Your task to perform on an android device: Open accessibility settings Image 0: 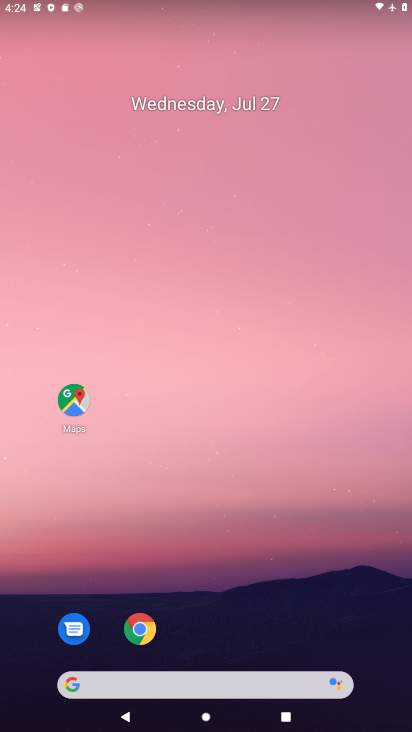
Step 0: drag from (253, 668) to (188, 131)
Your task to perform on an android device: Open accessibility settings Image 1: 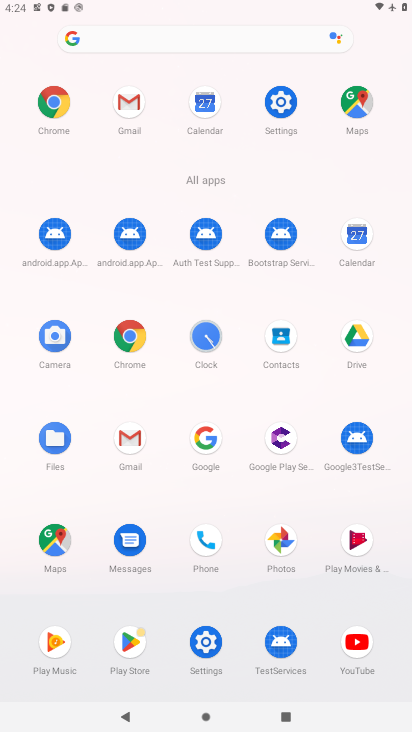
Step 1: click (288, 113)
Your task to perform on an android device: Open accessibility settings Image 2: 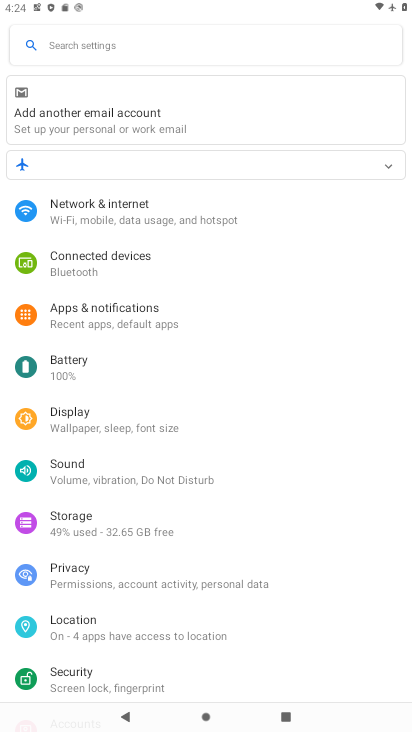
Step 2: drag from (217, 586) to (189, 75)
Your task to perform on an android device: Open accessibility settings Image 3: 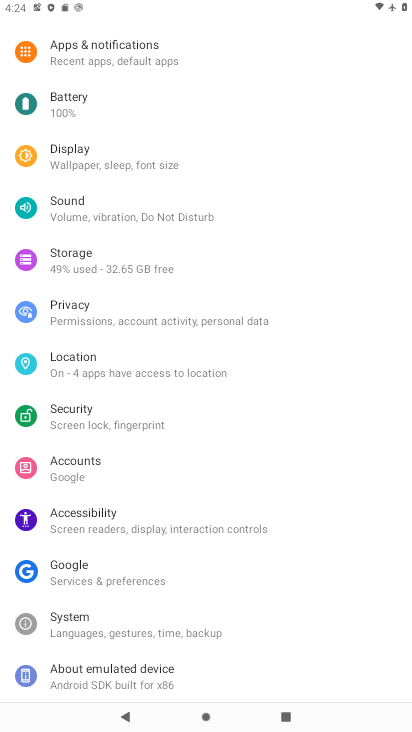
Step 3: click (107, 517)
Your task to perform on an android device: Open accessibility settings Image 4: 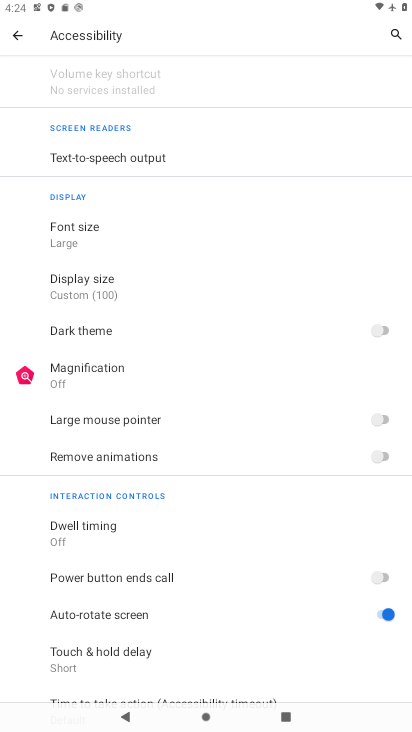
Step 4: task complete